Your task to perform on an android device: Go to Yahoo.com Image 0: 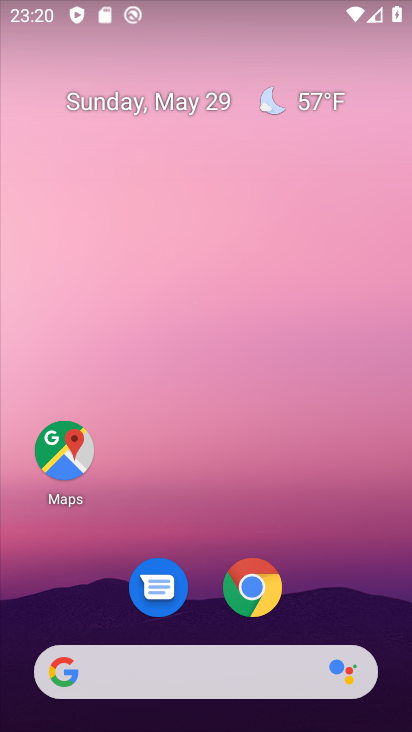
Step 0: drag from (319, 605) to (241, 145)
Your task to perform on an android device: Go to Yahoo.com Image 1: 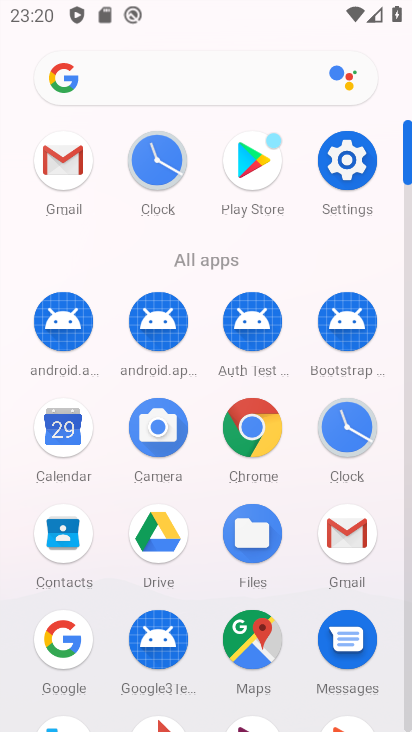
Step 1: click (266, 430)
Your task to perform on an android device: Go to Yahoo.com Image 2: 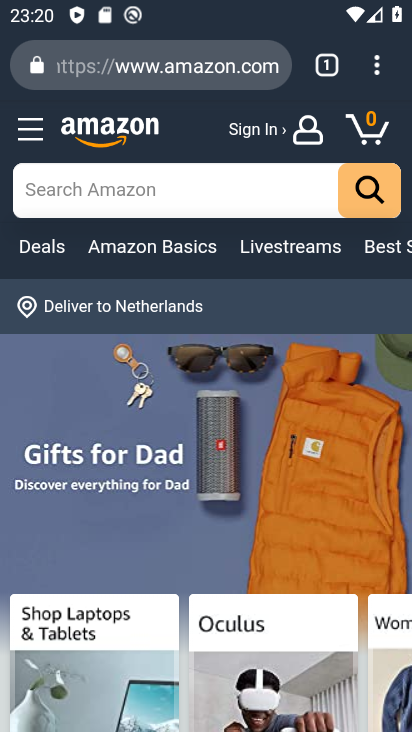
Step 2: click (337, 63)
Your task to perform on an android device: Go to Yahoo.com Image 3: 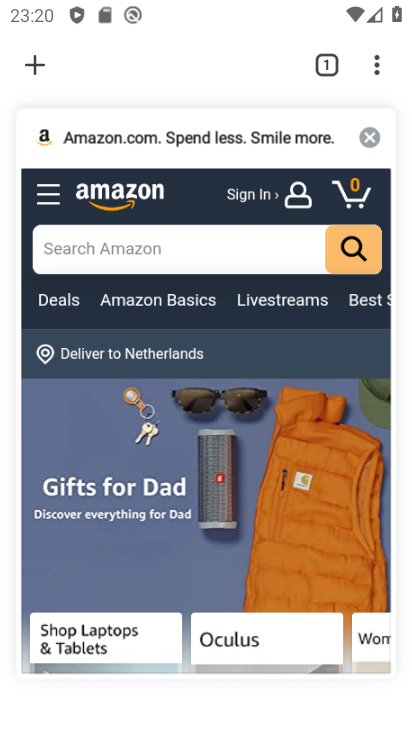
Step 3: click (40, 69)
Your task to perform on an android device: Go to Yahoo.com Image 4: 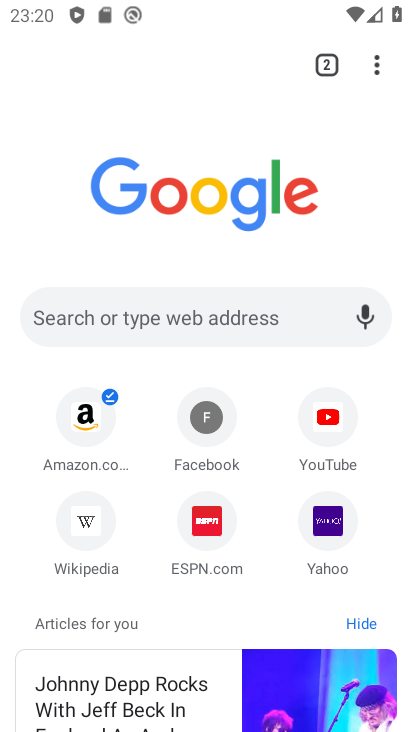
Step 4: click (317, 535)
Your task to perform on an android device: Go to Yahoo.com Image 5: 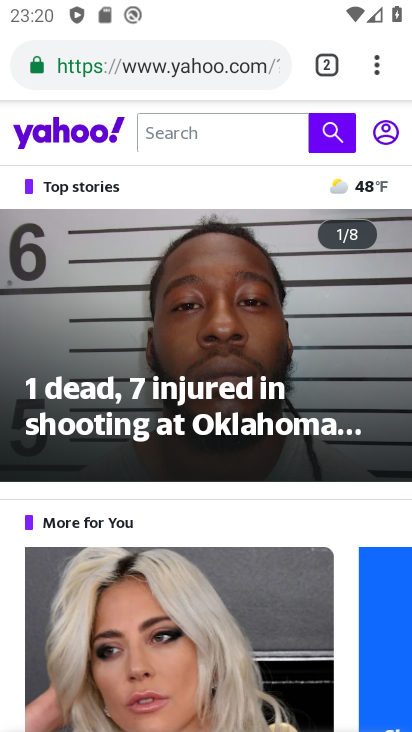
Step 5: task complete